Your task to perform on an android device: See recent photos Image 0: 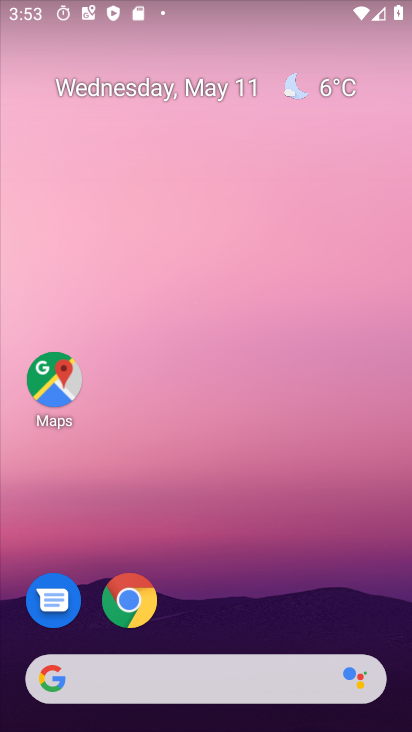
Step 0: drag from (308, 512) to (199, 125)
Your task to perform on an android device: See recent photos Image 1: 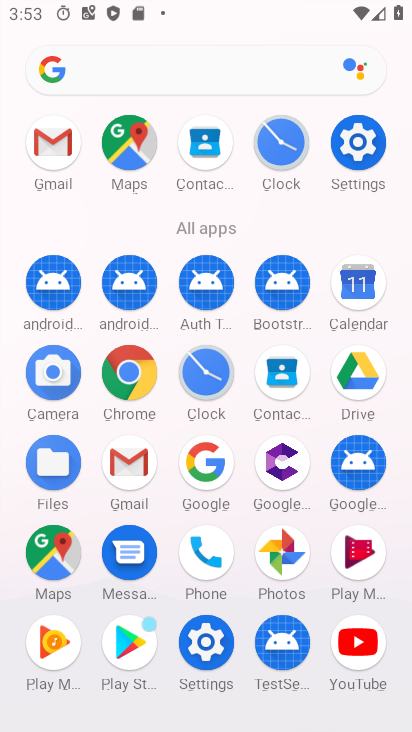
Step 1: click (297, 550)
Your task to perform on an android device: See recent photos Image 2: 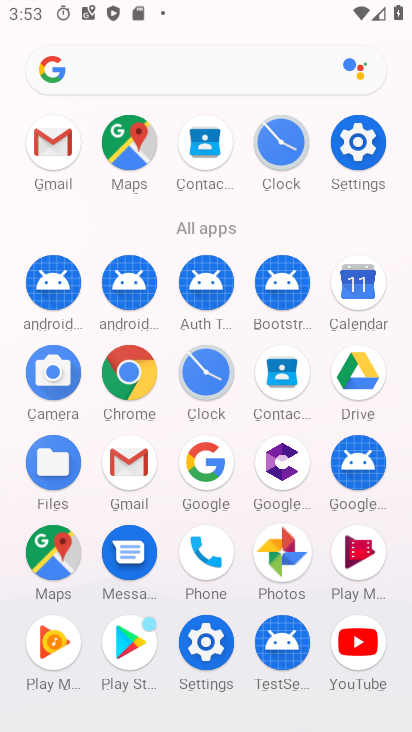
Step 2: click (291, 556)
Your task to perform on an android device: See recent photos Image 3: 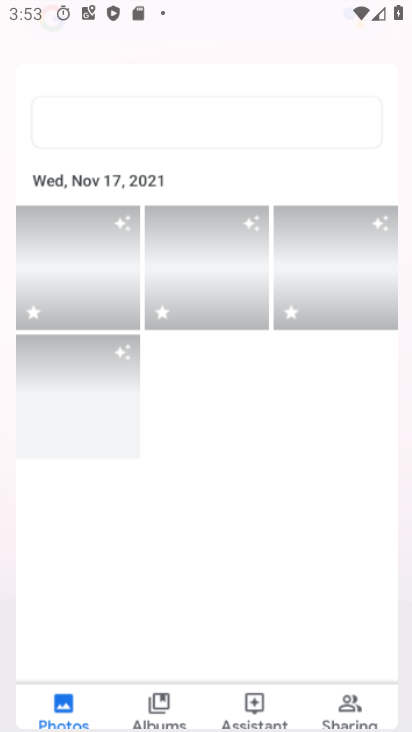
Step 3: click (291, 555)
Your task to perform on an android device: See recent photos Image 4: 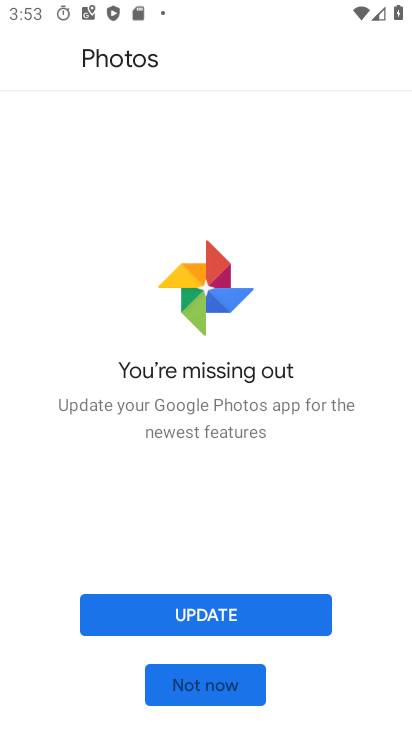
Step 4: click (211, 694)
Your task to perform on an android device: See recent photos Image 5: 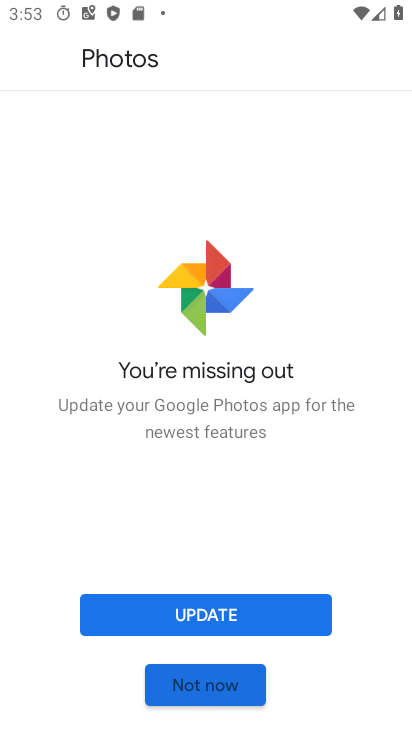
Step 5: click (213, 692)
Your task to perform on an android device: See recent photos Image 6: 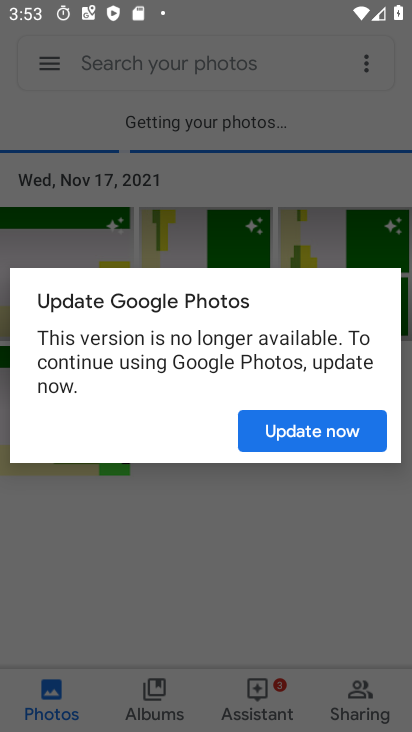
Step 6: click (289, 424)
Your task to perform on an android device: See recent photos Image 7: 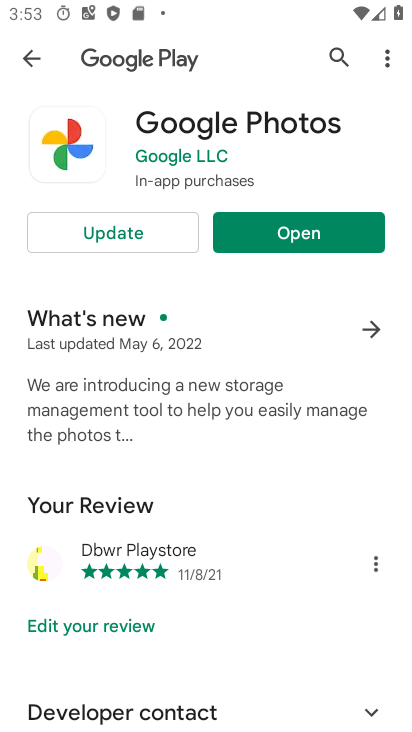
Step 7: click (304, 229)
Your task to perform on an android device: See recent photos Image 8: 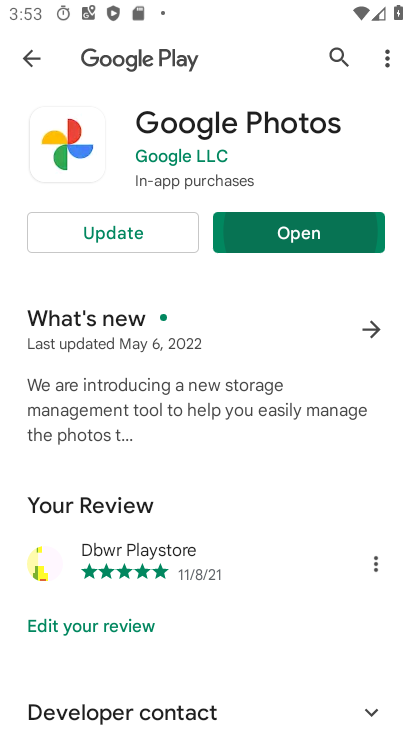
Step 8: click (303, 237)
Your task to perform on an android device: See recent photos Image 9: 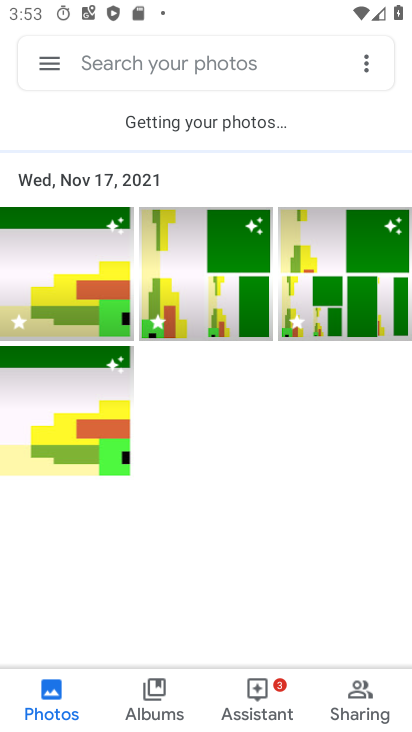
Step 9: task complete